Your task to perform on an android device: set the timer Image 0: 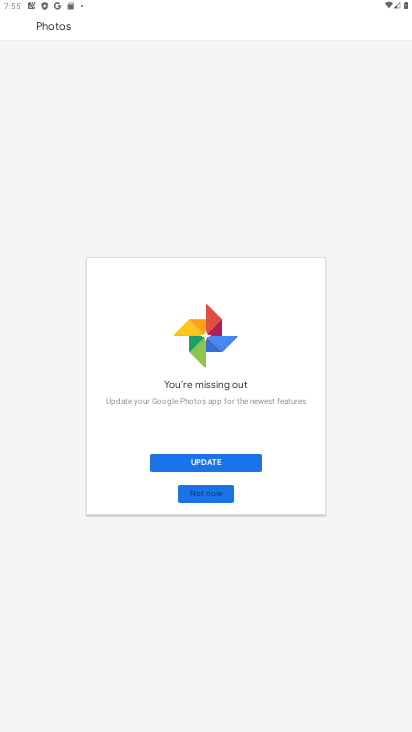
Step 0: press home button
Your task to perform on an android device: set the timer Image 1: 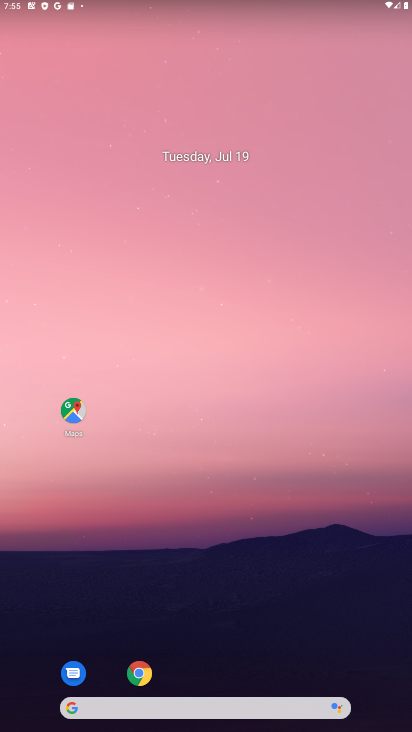
Step 1: drag from (233, 677) to (253, 132)
Your task to perform on an android device: set the timer Image 2: 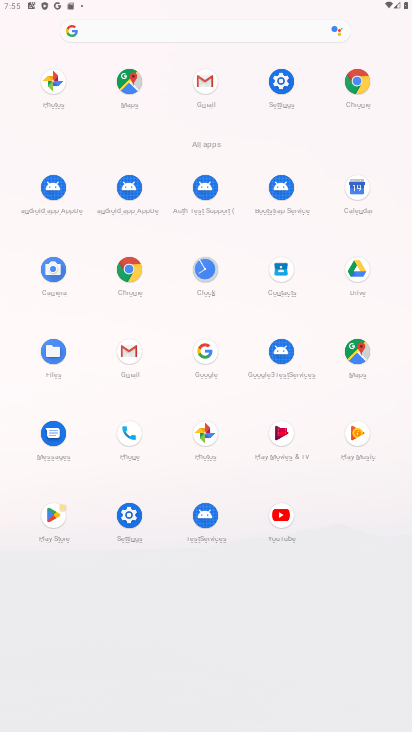
Step 2: click (209, 281)
Your task to perform on an android device: set the timer Image 3: 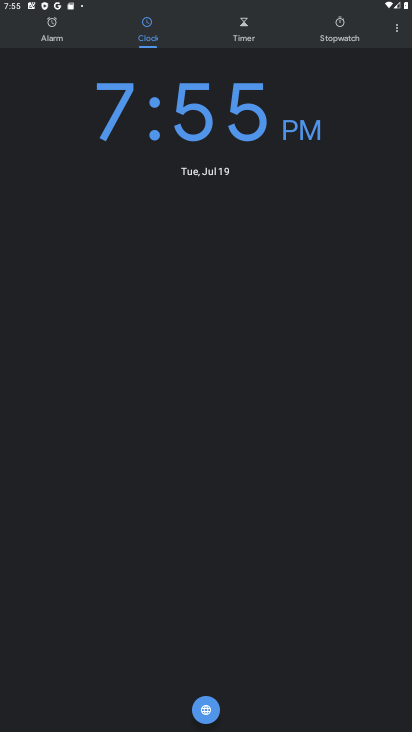
Step 3: click (241, 34)
Your task to perform on an android device: set the timer Image 4: 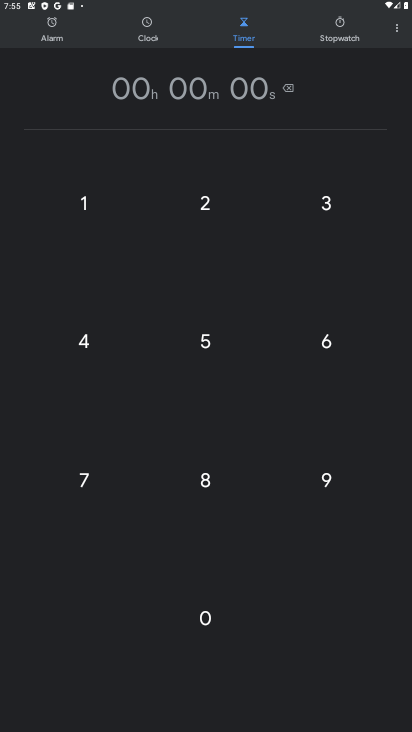
Step 4: task complete